Your task to perform on an android device: Go to wifi settings Image 0: 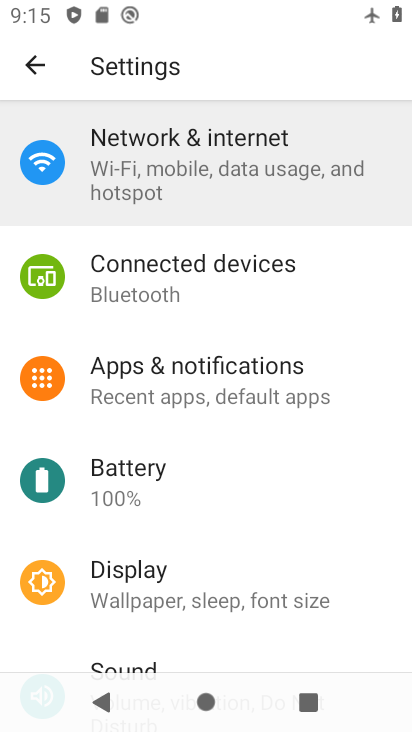
Step 0: click (177, 161)
Your task to perform on an android device: Go to wifi settings Image 1: 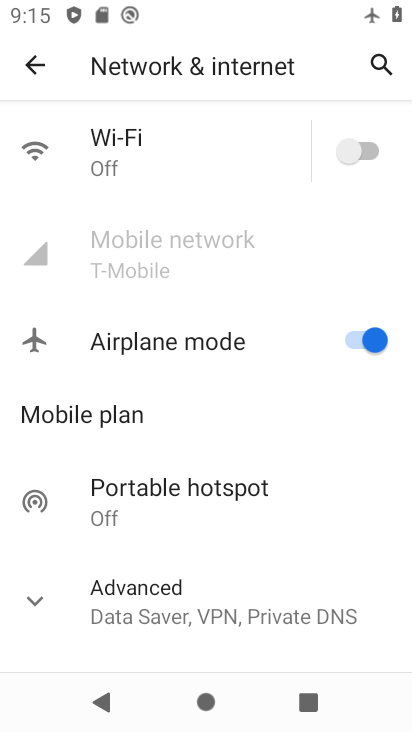
Step 1: click (153, 162)
Your task to perform on an android device: Go to wifi settings Image 2: 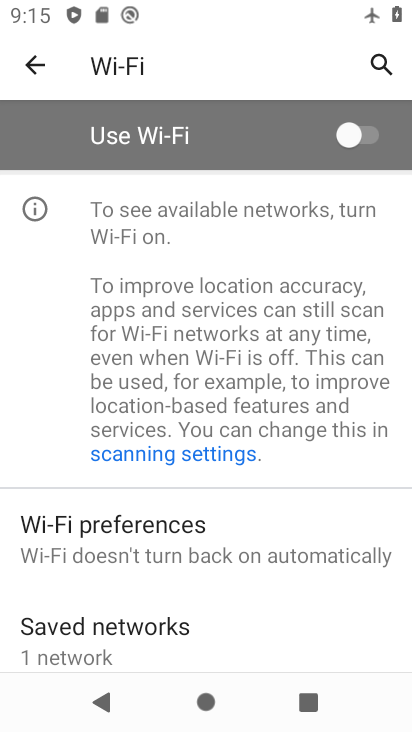
Step 2: drag from (128, 607) to (134, 116)
Your task to perform on an android device: Go to wifi settings Image 3: 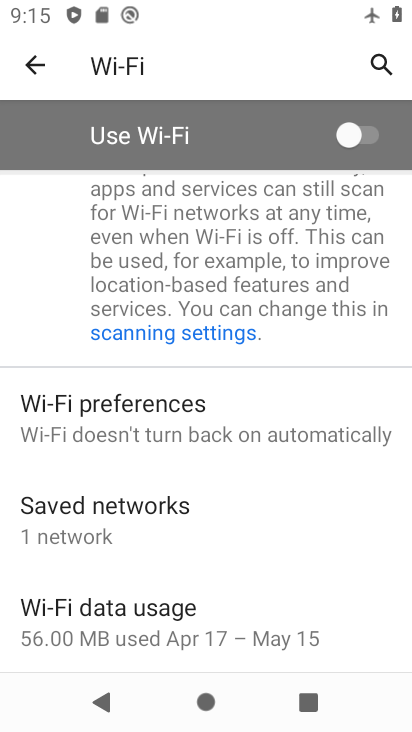
Step 3: click (363, 135)
Your task to perform on an android device: Go to wifi settings Image 4: 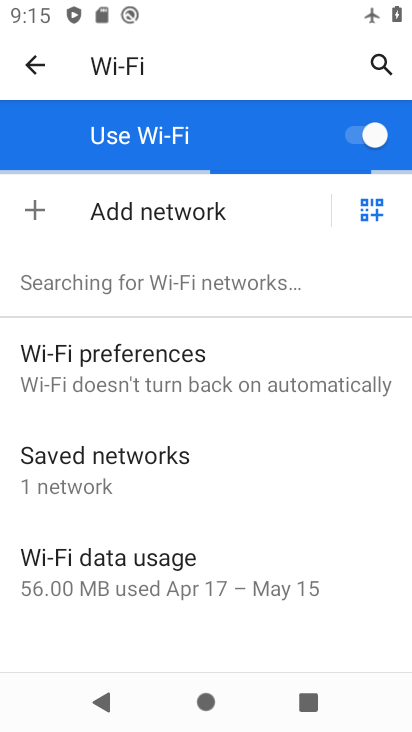
Step 4: task complete